Your task to perform on an android device: Clear the cart on amazon. Add "razer deathadder" to the cart on amazon Image 0: 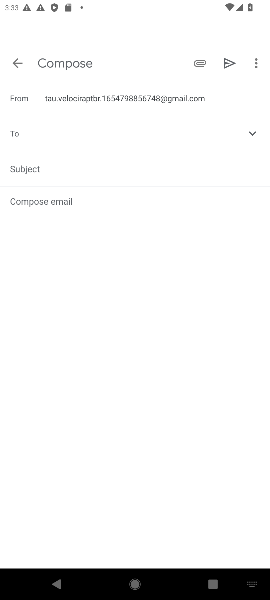
Step 0: press home button
Your task to perform on an android device: Clear the cart on amazon. Add "razer deathadder" to the cart on amazon Image 1: 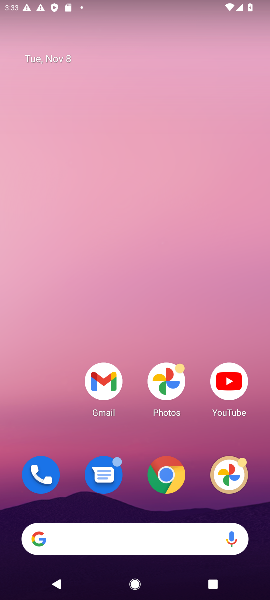
Step 1: drag from (109, 523) to (112, 214)
Your task to perform on an android device: Clear the cart on amazon. Add "razer deathadder" to the cart on amazon Image 2: 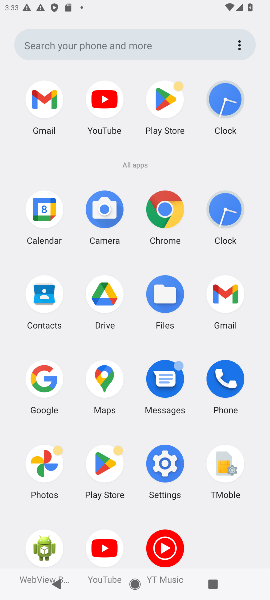
Step 2: click (46, 381)
Your task to perform on an android device: Clear the cart on amazon. Add "razer deathadder" to the cart on amazon Image 3: 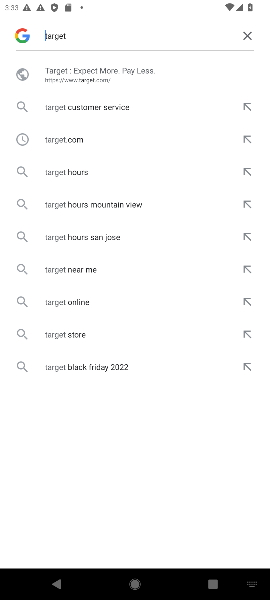
Step 3: click (247, 35)
Your task to perform on an android device: Clear the cart on amazon. Add "razer deathadder" to the cart on amazon Image 4: 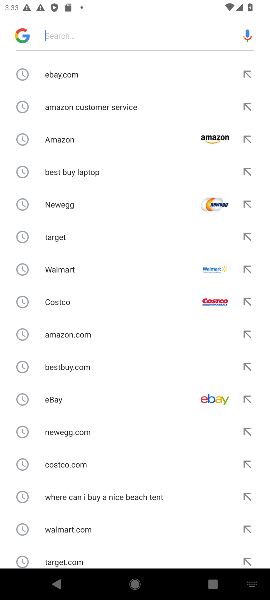
Step 4: click (87, 29)
Your task to perform on an android device: Clear the cart on amazon. Add "razer deathadder" to the cart on amazon Image 5: 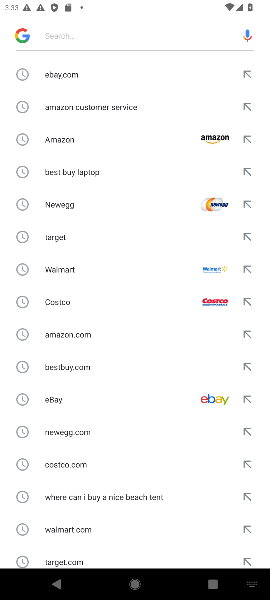
Step 5: type "amazon "
Your task to perform on an android device: Clear the cart on amazon. Add "razer deathadder" to the cart on amazon Image 6: 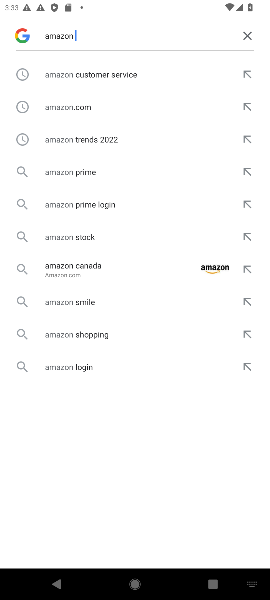
Step 6: click (78, 106)
Your task to perform on an android device: Clear the cart on amazon. Add "razer deathadder" to the cart on amazon Image 7: 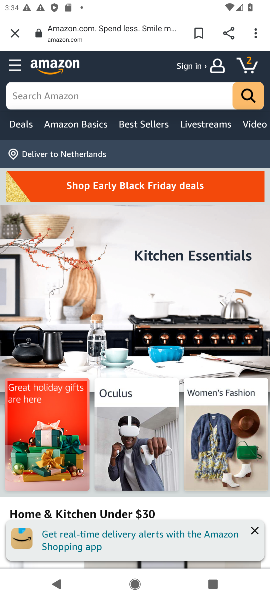
Step 7: click (140, 91)
Your task to perform on an android device: Clear the cart on amazon. Add "razer deathadder" to the cart on amazon Image 8: 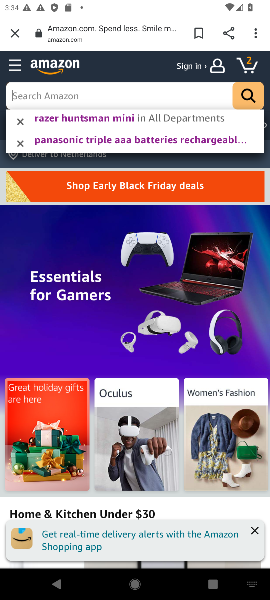
Step 8: type "razer deathadder "
Your task to perform on an android device: Clear the cart on amazon. Add "razer deathadder" to the cart on amazon Image 9: 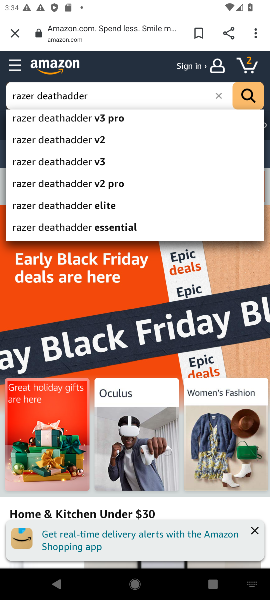
Step 9: click (109, 117)
Your task to perform on an android device: Clear the cart on amazon. Add "razer deathadder" to the cart on amazon Image 10: 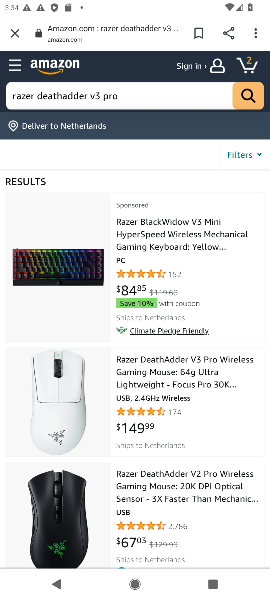
Step 10: click (154, 355)
Your task to perform on an android device: Clear the cart on amazon. Add "razer deathadder" to the cart on amazon Image 11: 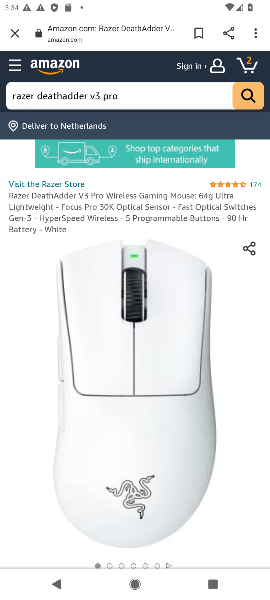
Step 11: drag from (182, 498) to (161, 235)
Your task to perform on an android device: Clear the cart on amazon. Add "razer deathadder" to the cart on amazon Image 12: 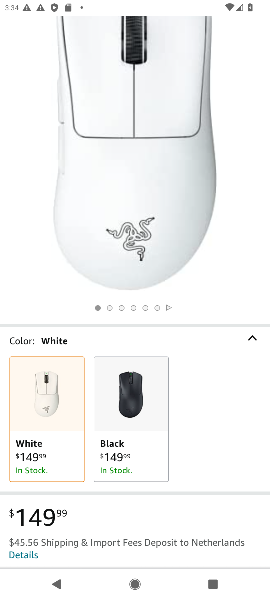
Step 12: drag from (174, 293) to (169, 185)
Your task to perform on an android device: Clear the cart on amazon. Add "razer deathadder" to the cart on amazon Image 13: 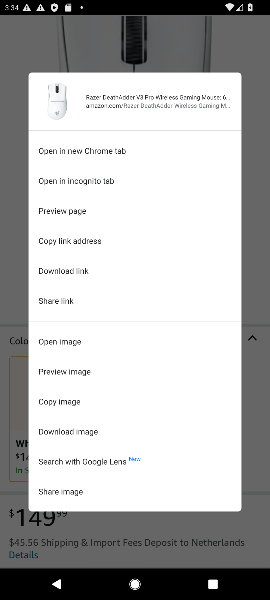
Step 13: click (261, 149)
Your task to perform on an android device: Clear the cart on amazon. Add "razer deathadder" to the cart on amazon Image 14: 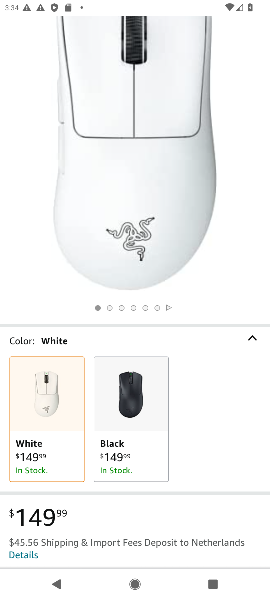
Step 14: drag from (106, 548) to (130, 203)
Your task to perform on an android device: Clear the cart on amazon. Add "razer deathadder" to the cart on amazon Image 15: 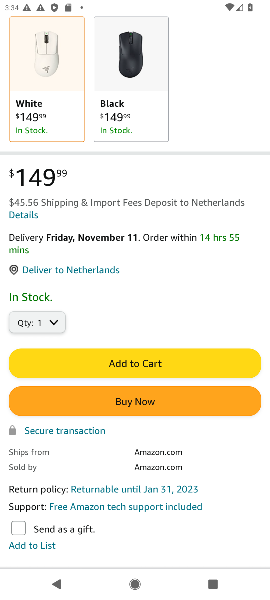
Step 15: click (134, 359)
Your task to perform on an android device: Clear the cart on amazon. Add "razer deathadder" to the cart on amazon Image 16: 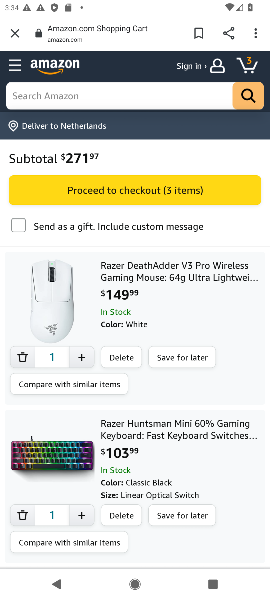
Step 16: task complete